Your task to perform on an android device: toggle show notifications on the lock screen Image 0: 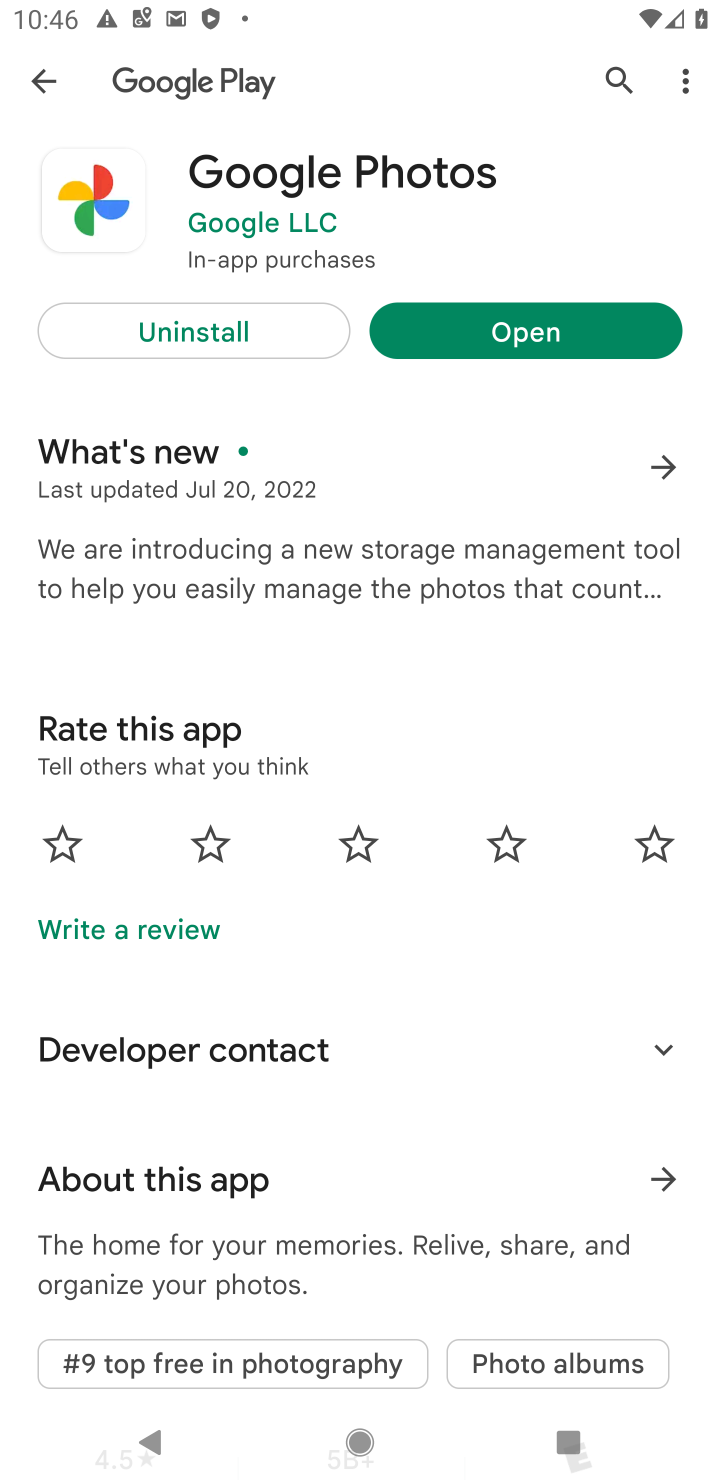
Step 0: drag from (301, 469) to (356, 1462)
Your task to perform on an android device: toggle show notifications on the lock screen Image 1: 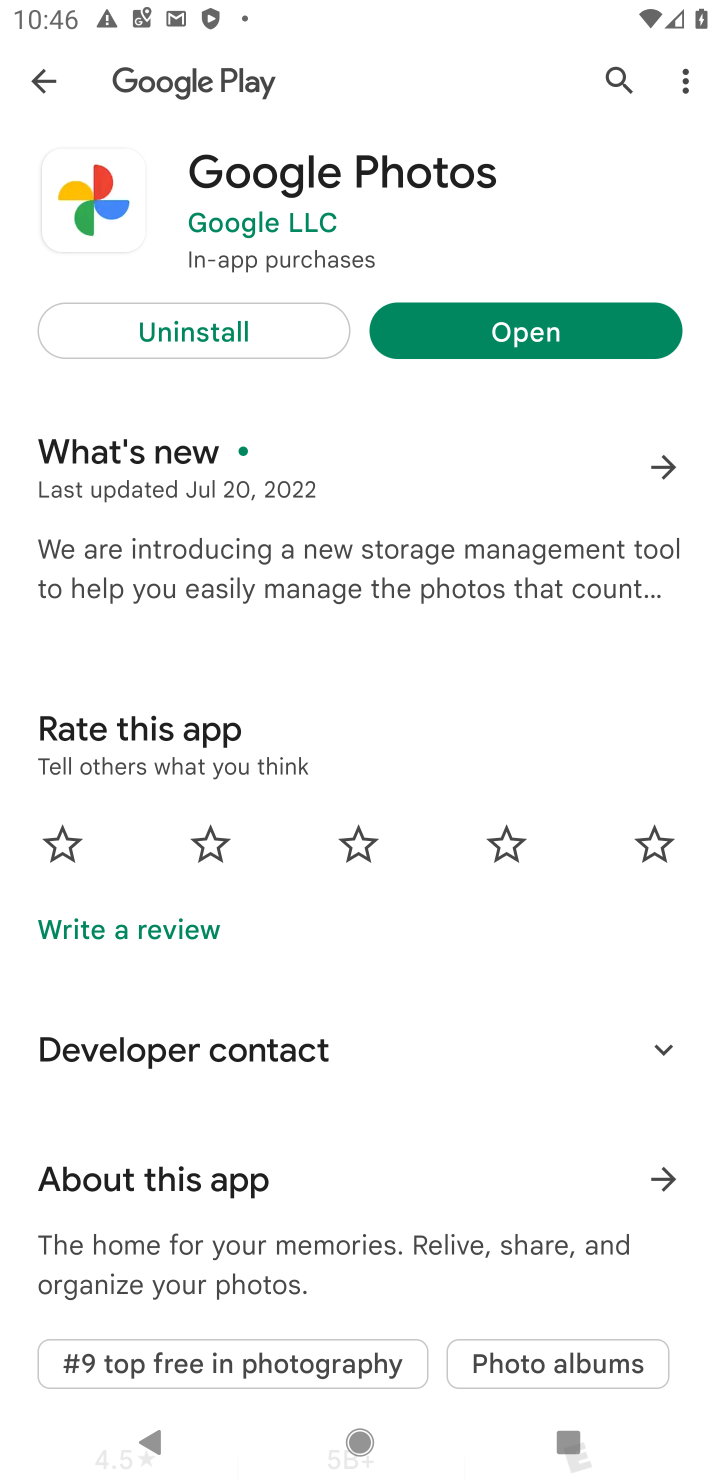
Step 1: drag from (365, 616) to (401, 1416)
Your task to perform on an android device: toggle show notifications on the lock screen Image 2: 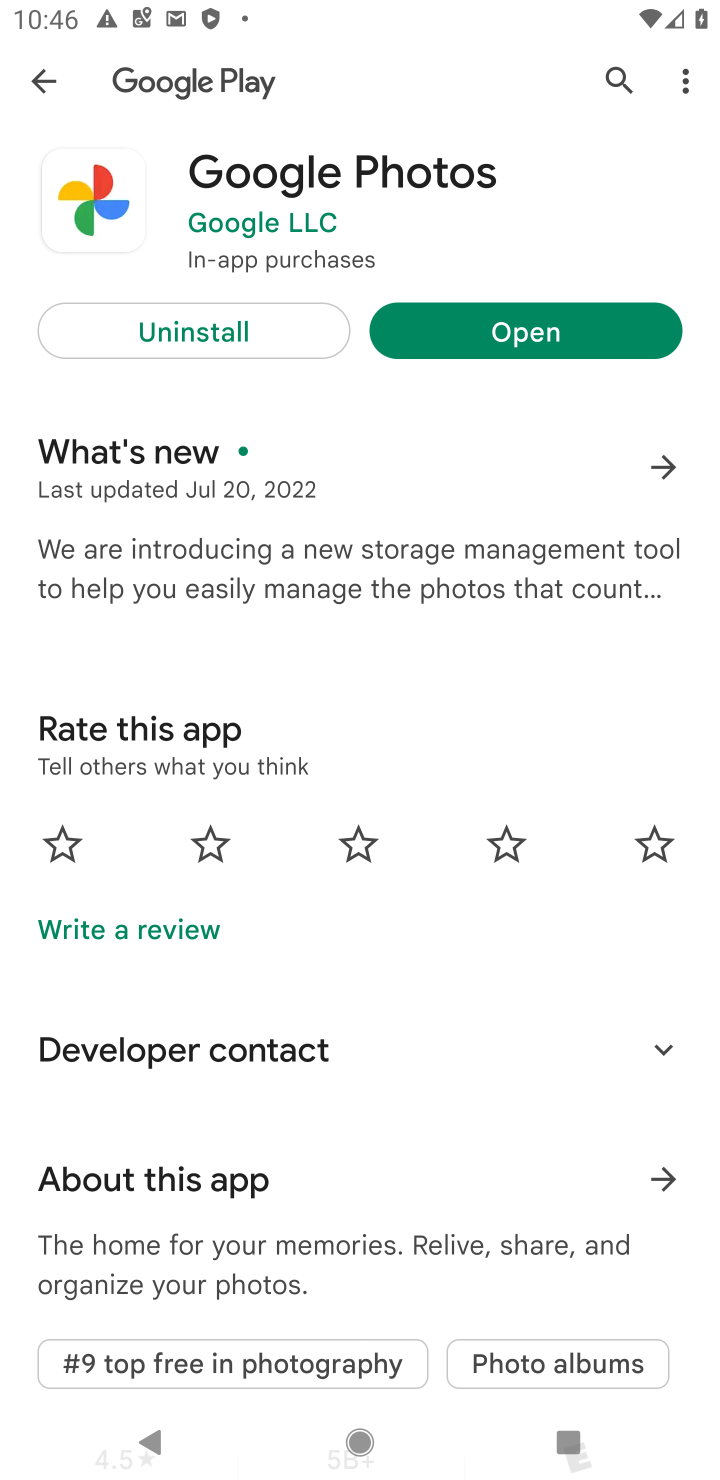
Step 2: press home button
Your task to perform on an android device: toggle show notifications on the lock screen Image 3: 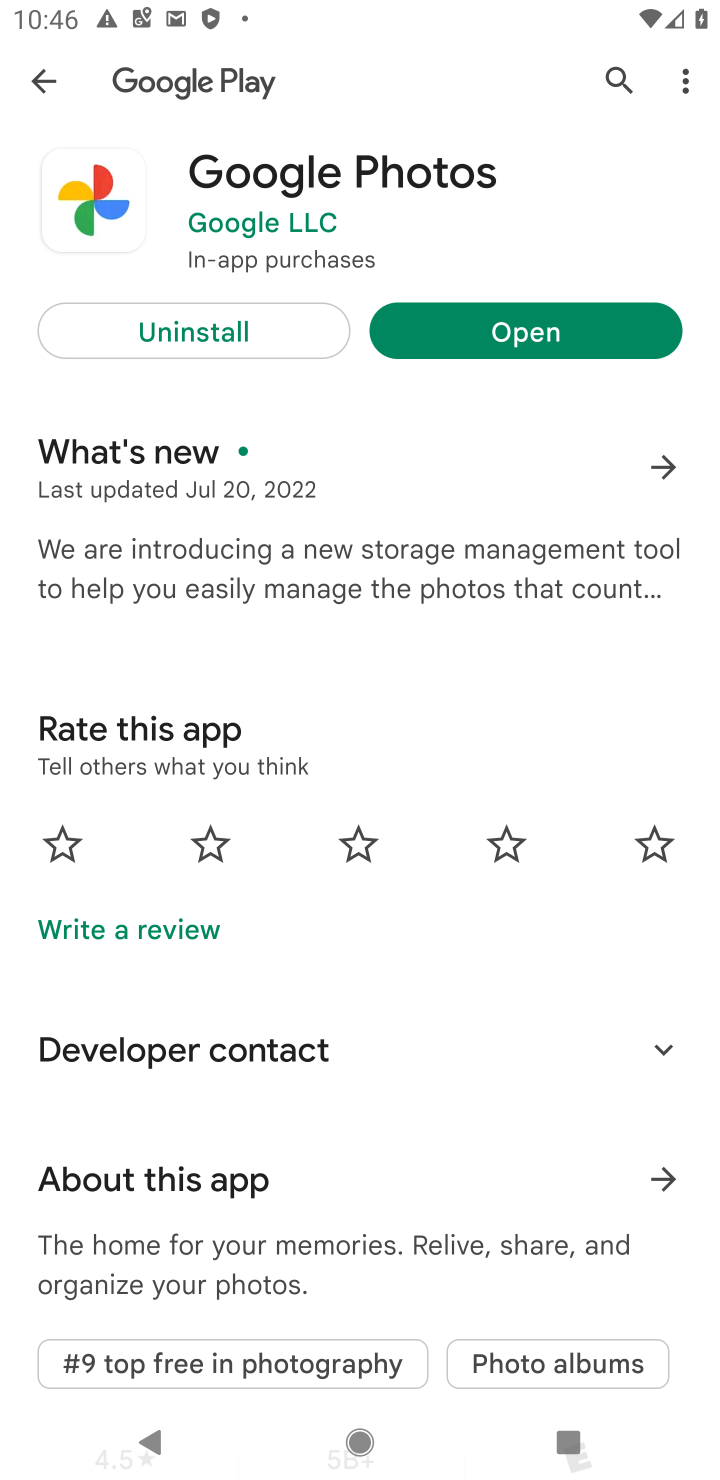
Step 3: drag from (313, 1241) to (557, 553)
Your task to perform on an android device: toggle show notifications on the lock screen Image 4: 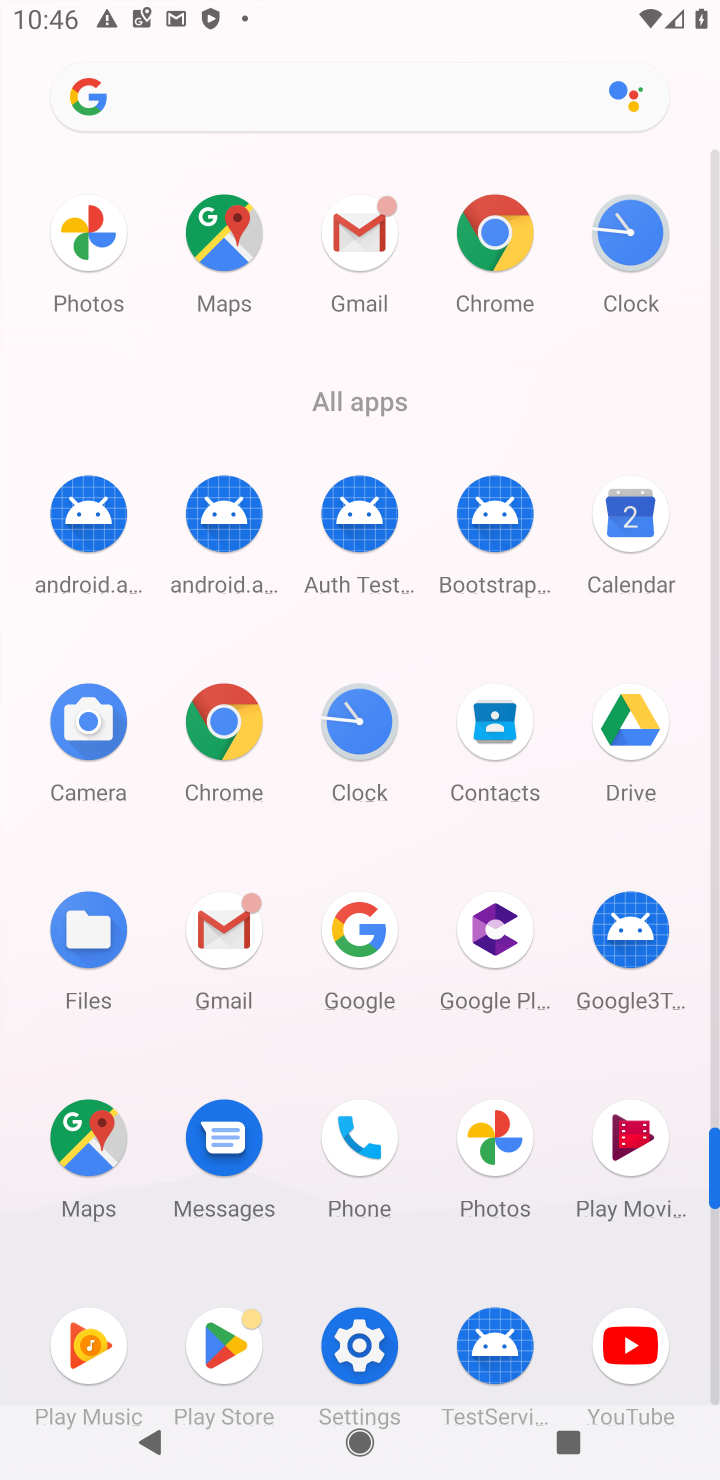
Step 4: click (380, 839)
Your task to perform on an android device: toggle show notifications on the lock screen Image 5: 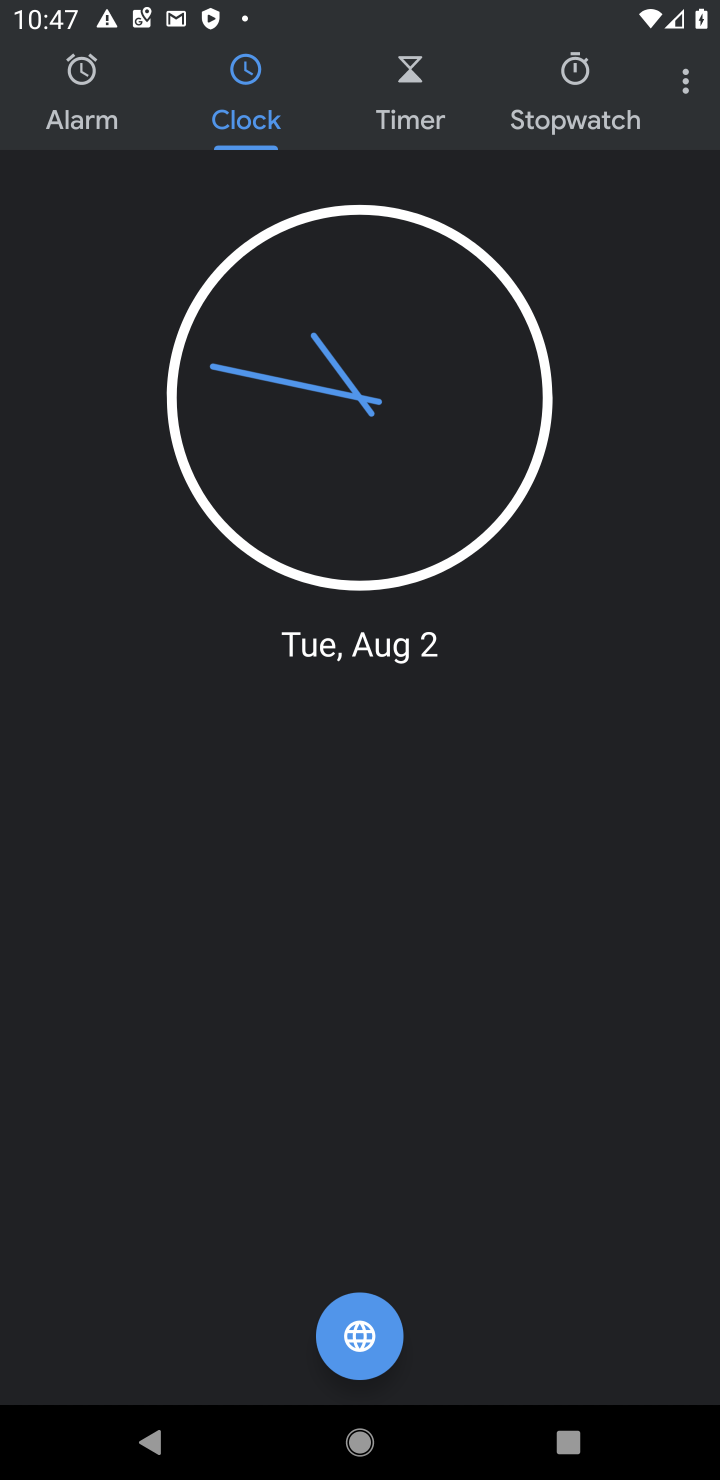
Step 5: press home button
Your task to perform on an android device: toggle show notifications on the lock screen Image 6: 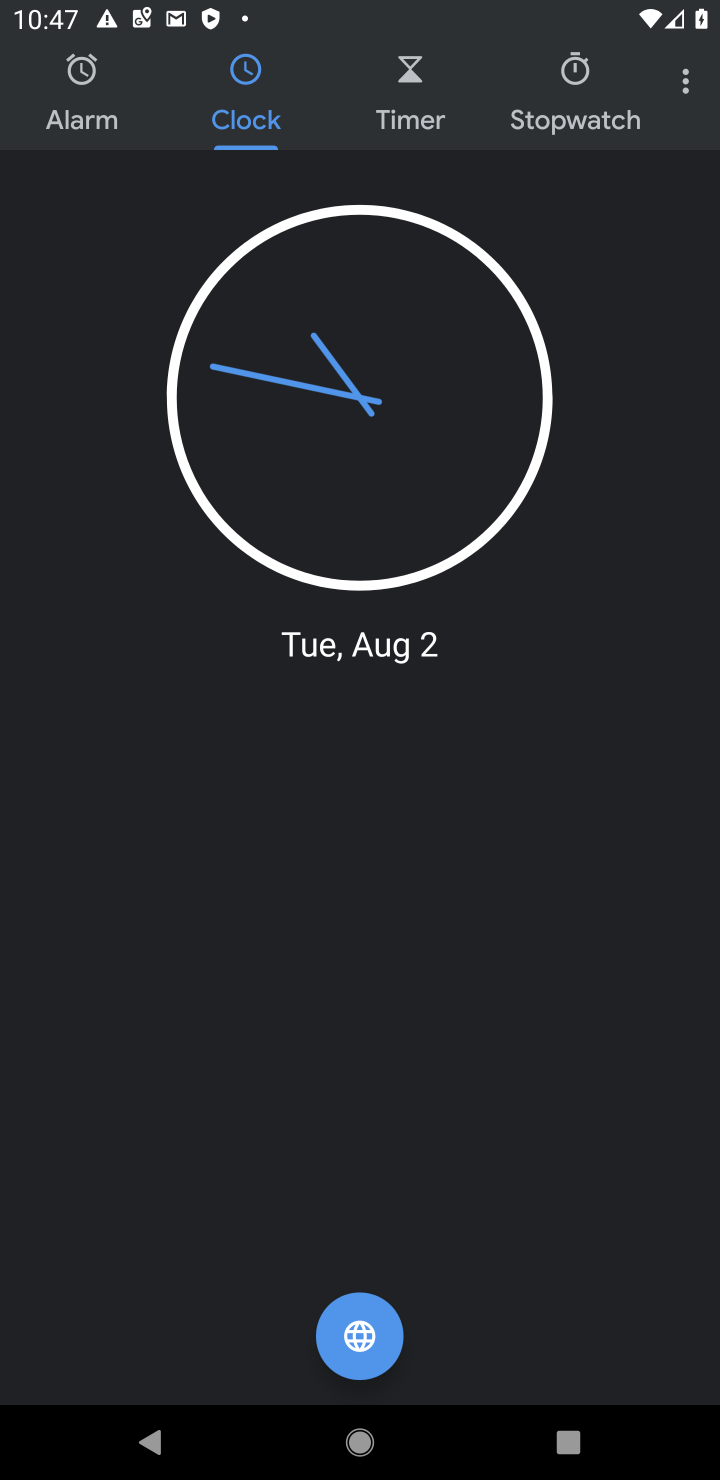
Step 6: press home button
Your task to perform on an android device: toggle show notifications on the lock screen Image 7: 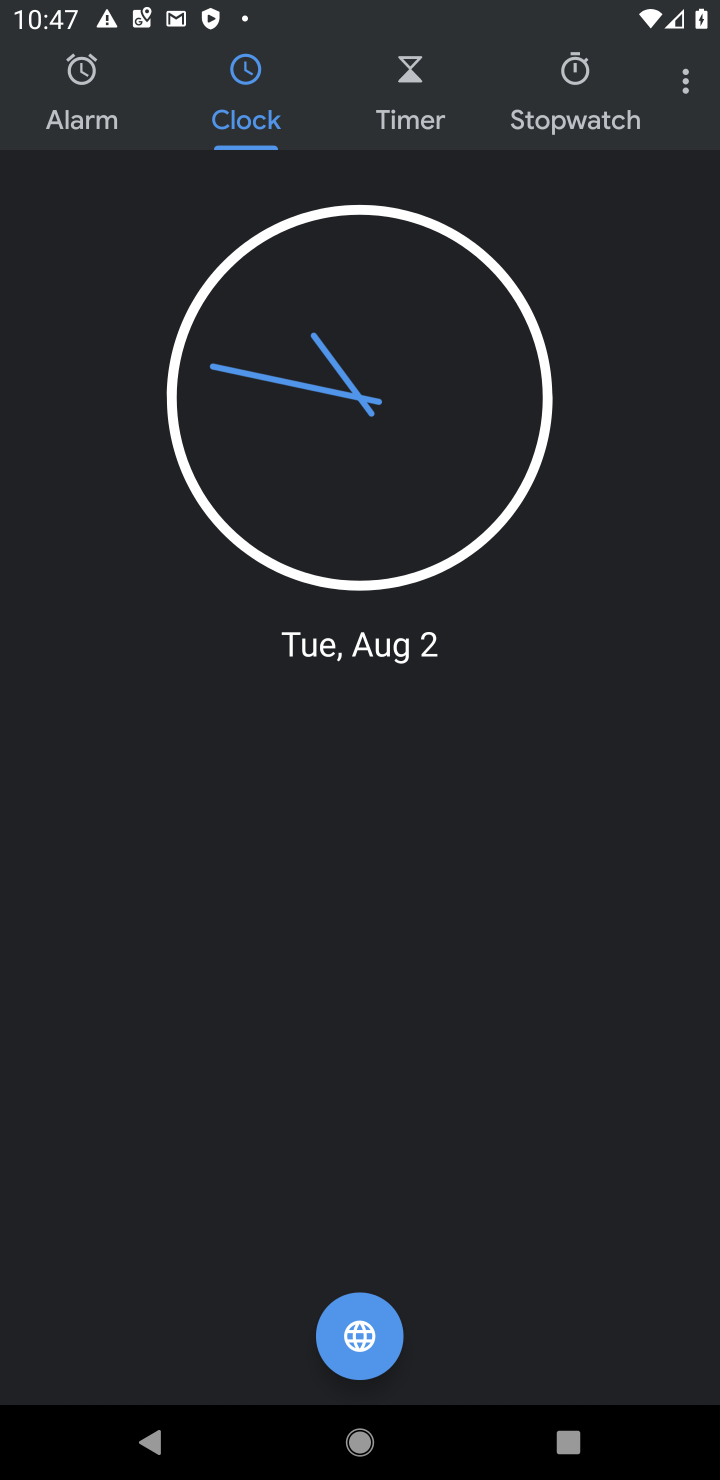
Step 7: click (474, 394)
Your task to perform on an android device: toggle show notifications on the lock screen Image 8: 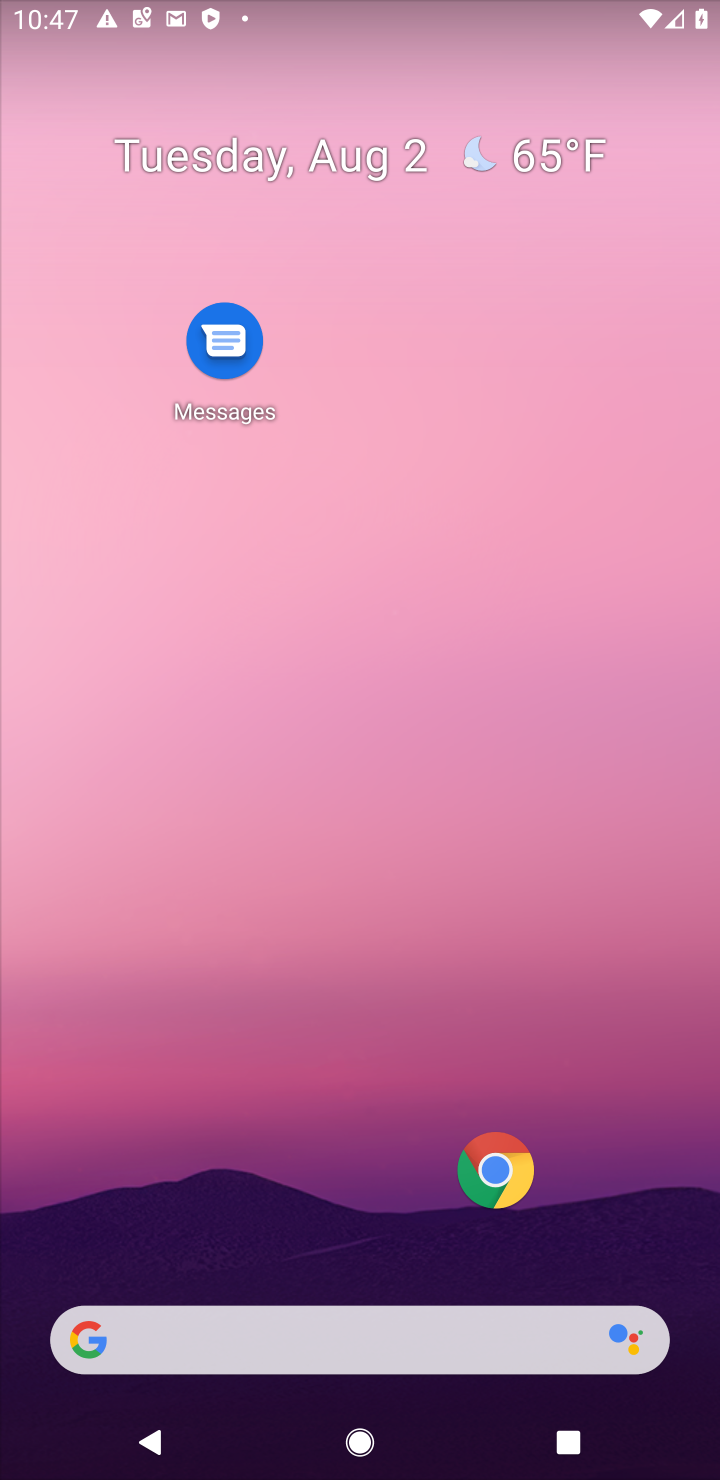
Step 8: drag from (307, 999) to (329, 4)
Your task to perform on an android device: toggle show notifications on the lock screen Image 9: 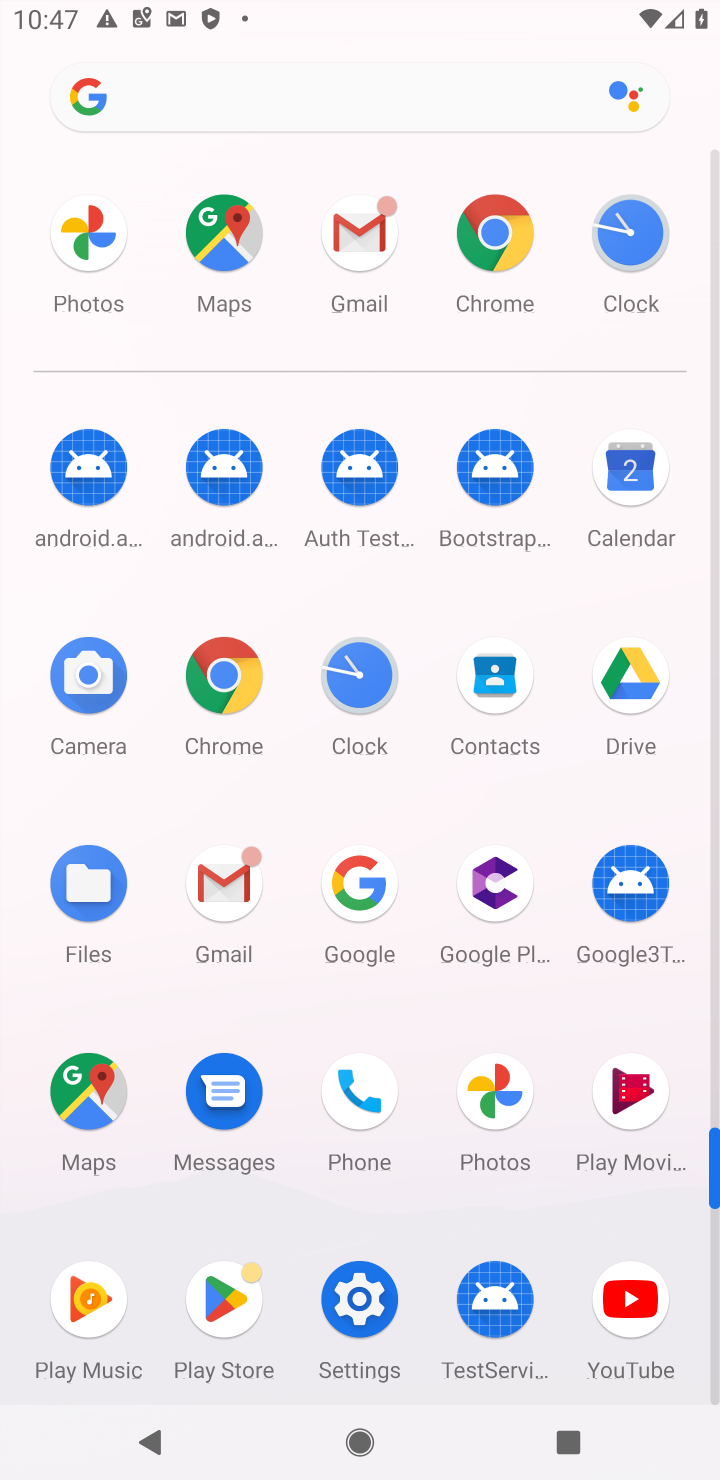
Step 9: drag from (320, 1219) to (463, 0)
Your task to perform on an android device: toggle show notifications on the lock screen Image 10: 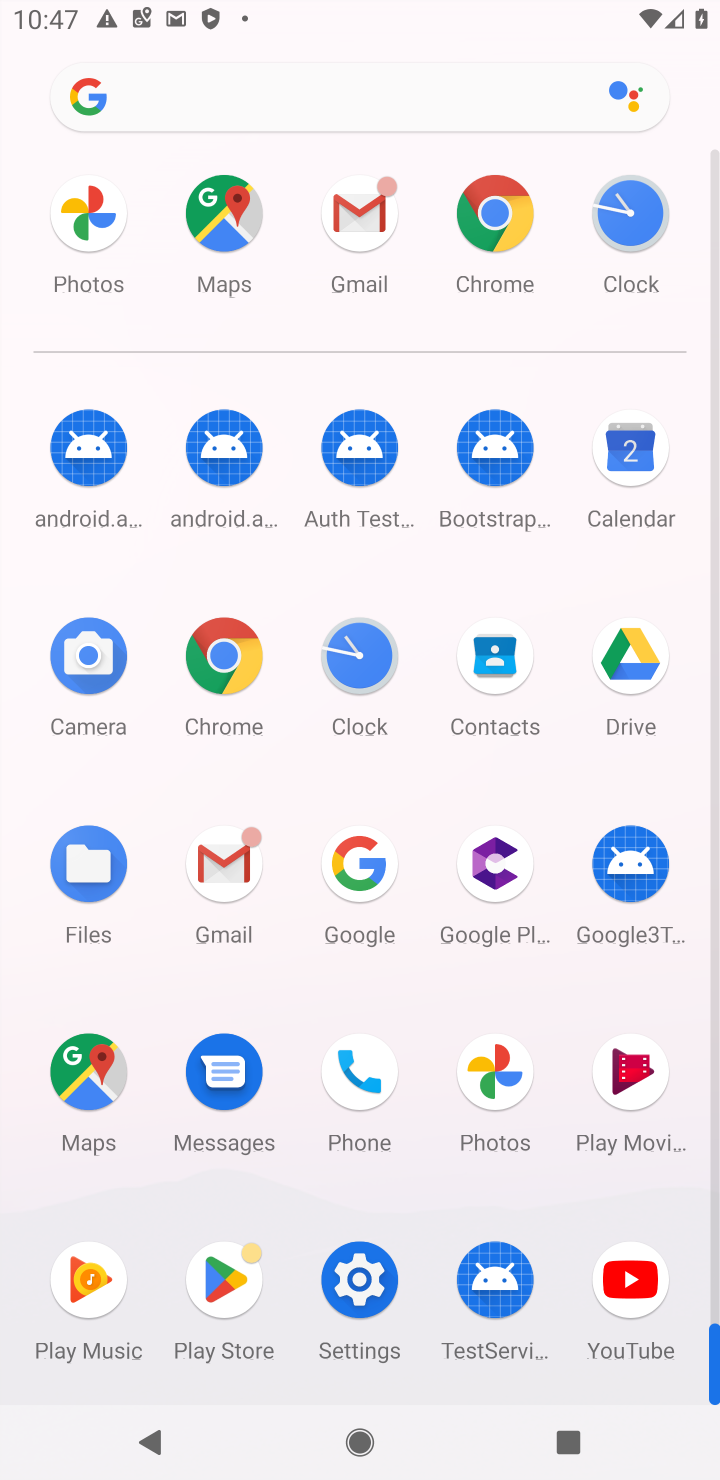
Step 10: drag from (411, 1128) to (376, 277)
Your task to perform on an android device: toggle show notifications on the lock screen Image 11: 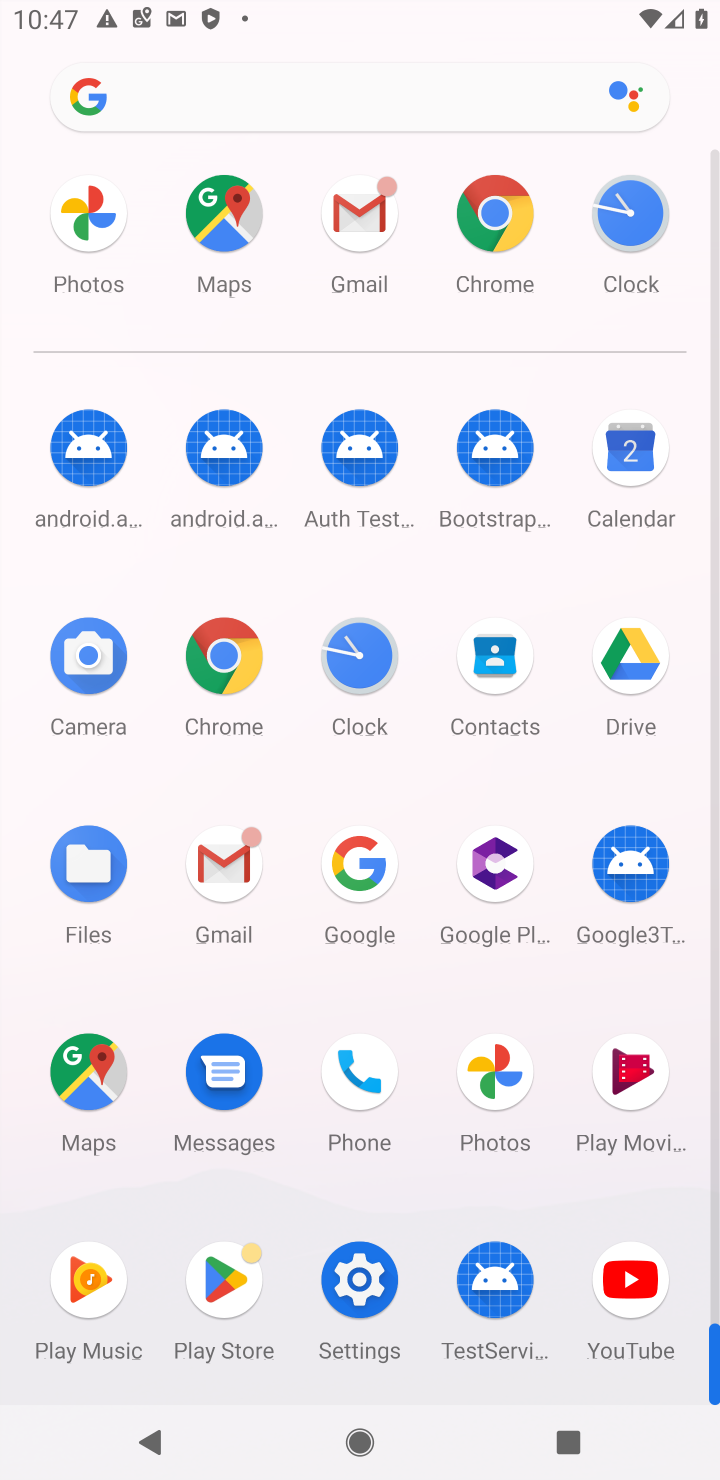
Step 11: drag from (433, 1172) to (437, 726)
Your task to perform on an android device: toggle show notifications on the lock screen Image 12: 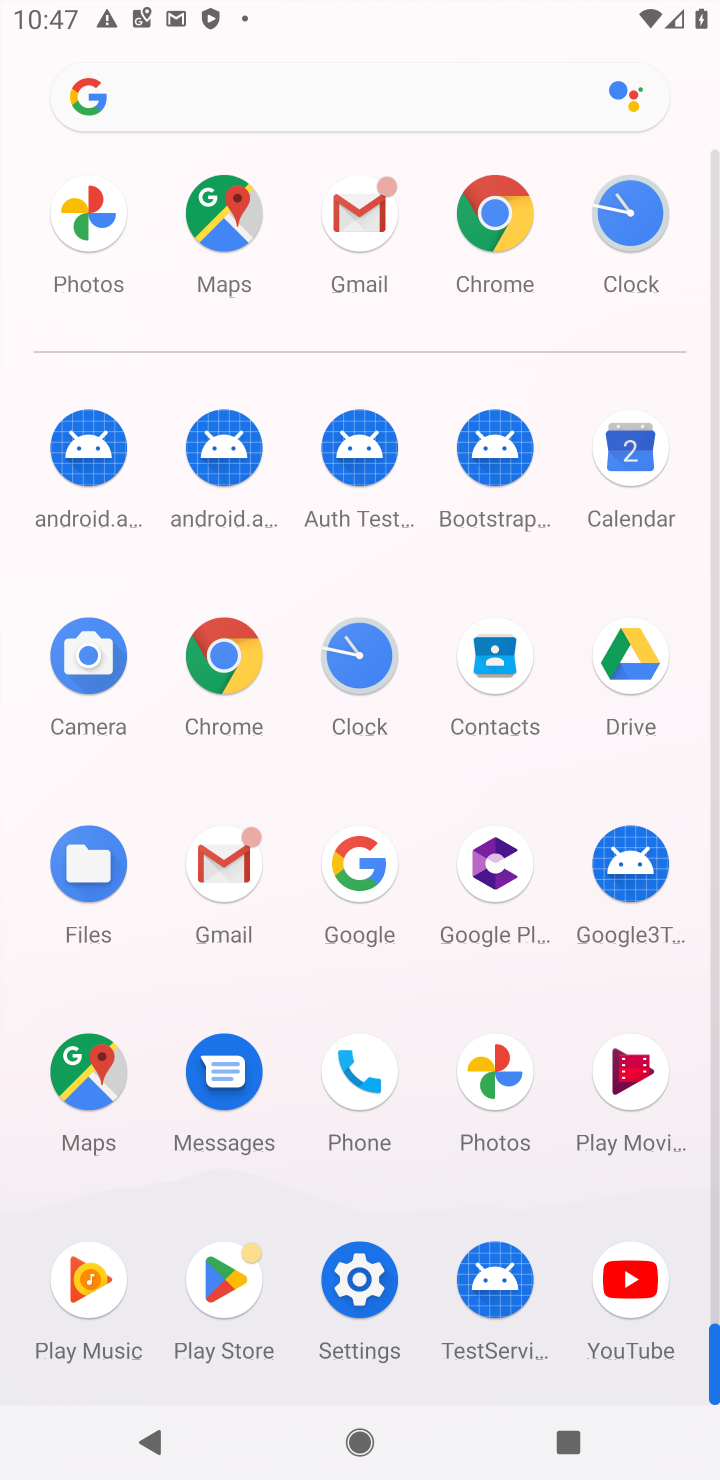
Step 12: click (360, 1273)
Your task to perform on an android device: toggle show notifications on the lock screen Image 13: 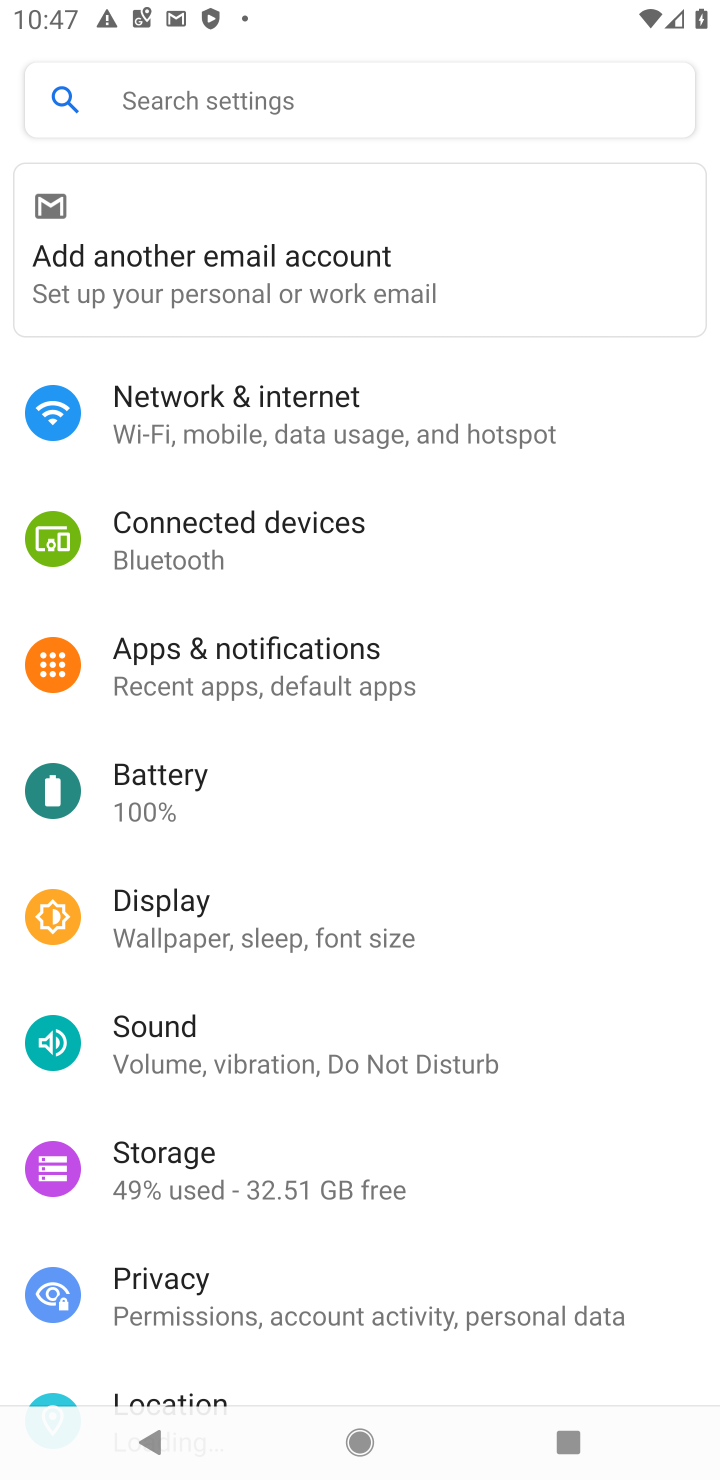
Step 13: click (253, 667)
Your task to perform on an android device: toggle show notifications on the lock screen Image 14: 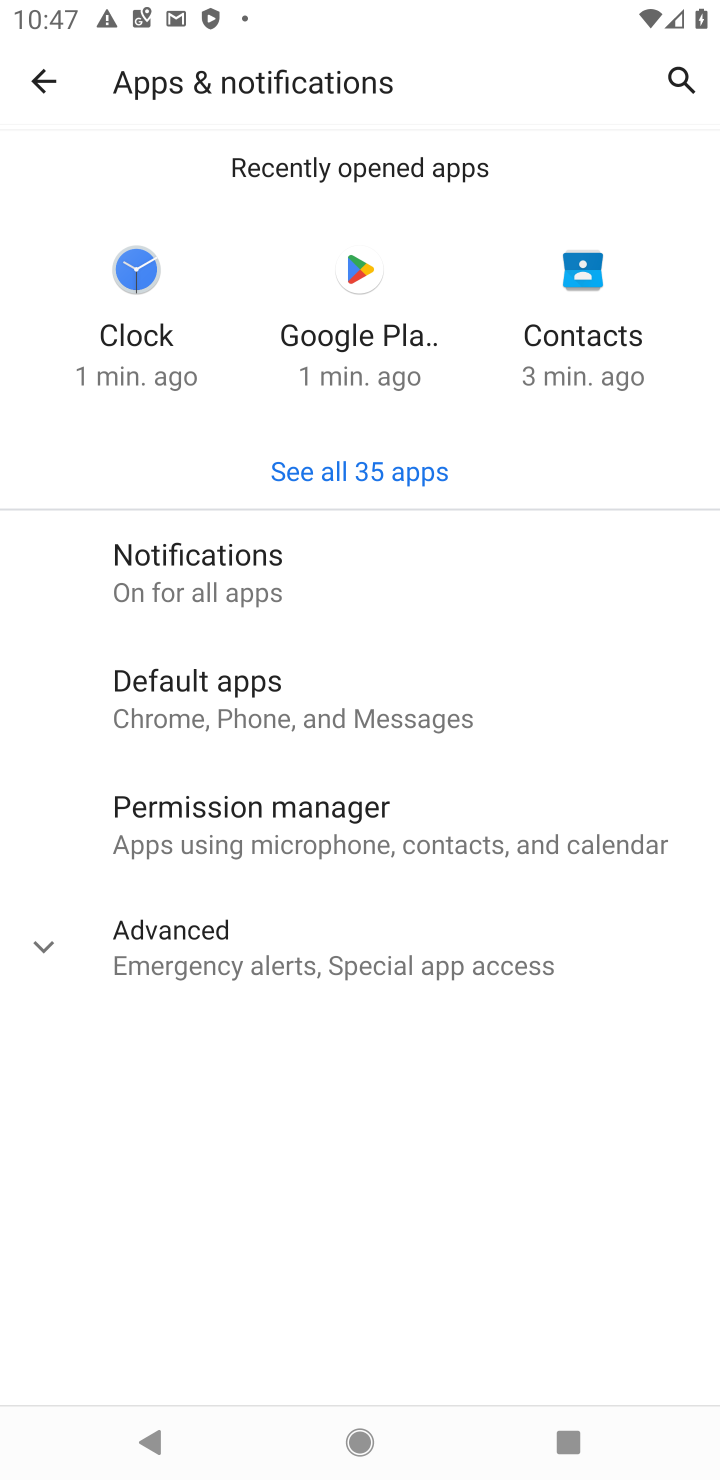
Step 14: click (293, 586)
Your task to perform on an android device: toggle show notifications on the lock screen Image 15: 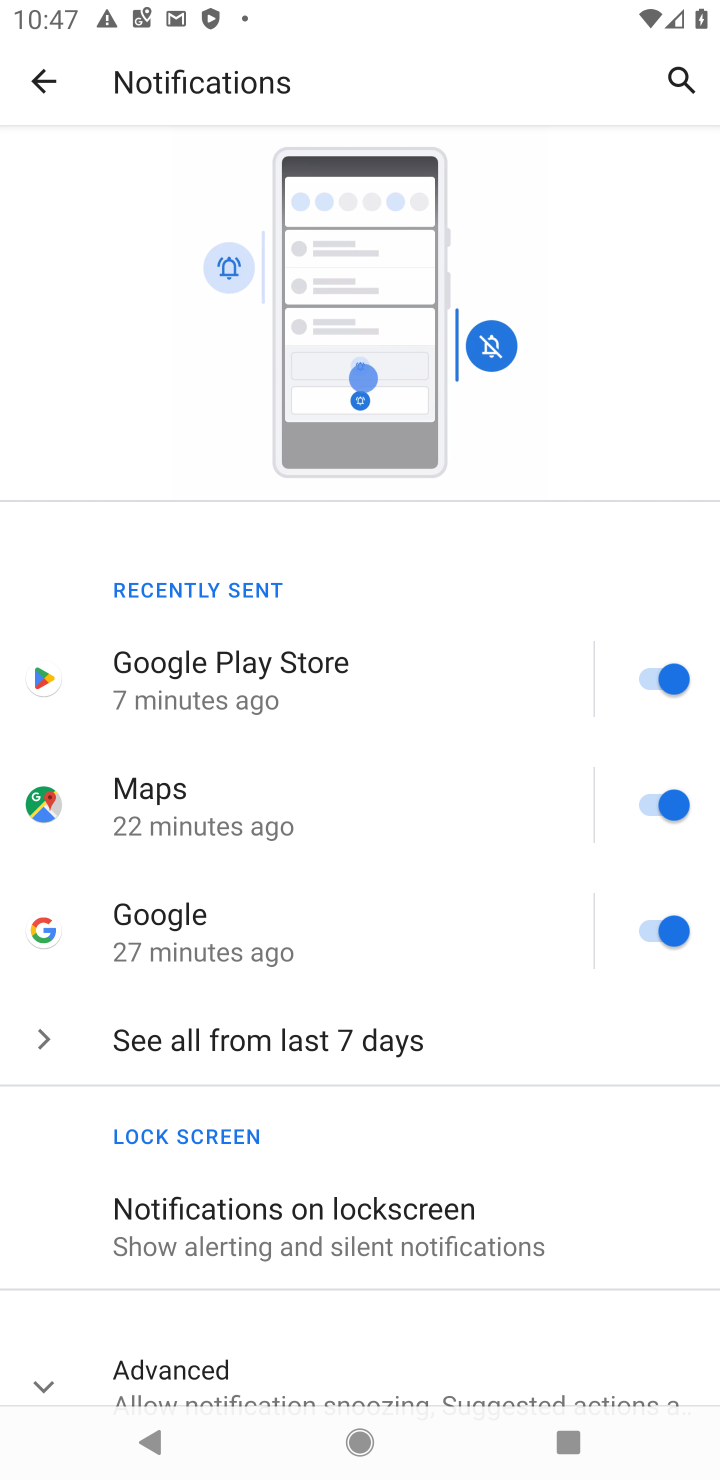
Step 15: click (277, 1240)
Your task to perform on an android device: toggle show notifications on the lock screen Image 16: 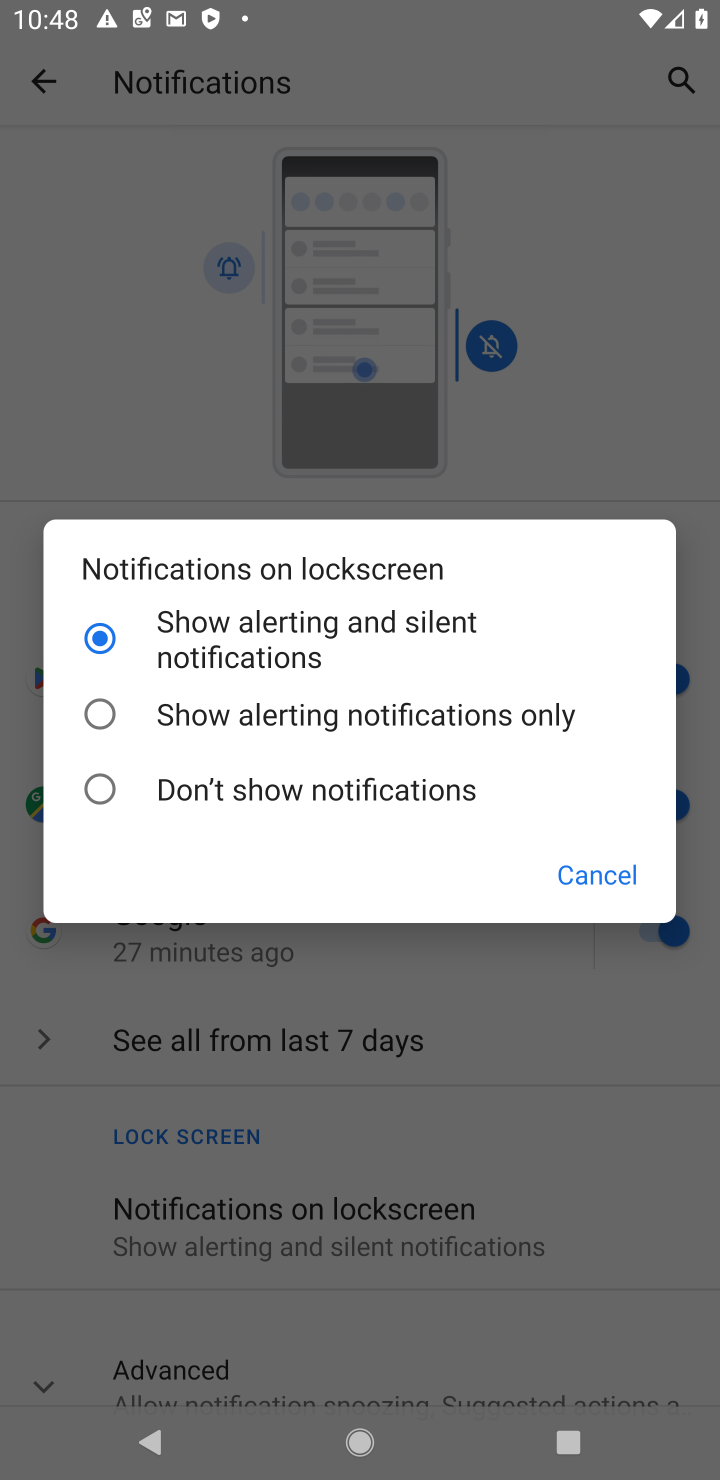
Step 16: click (132, 731)
Your task to perform on an android device: toggle show notifications on the lock screen Image 17: 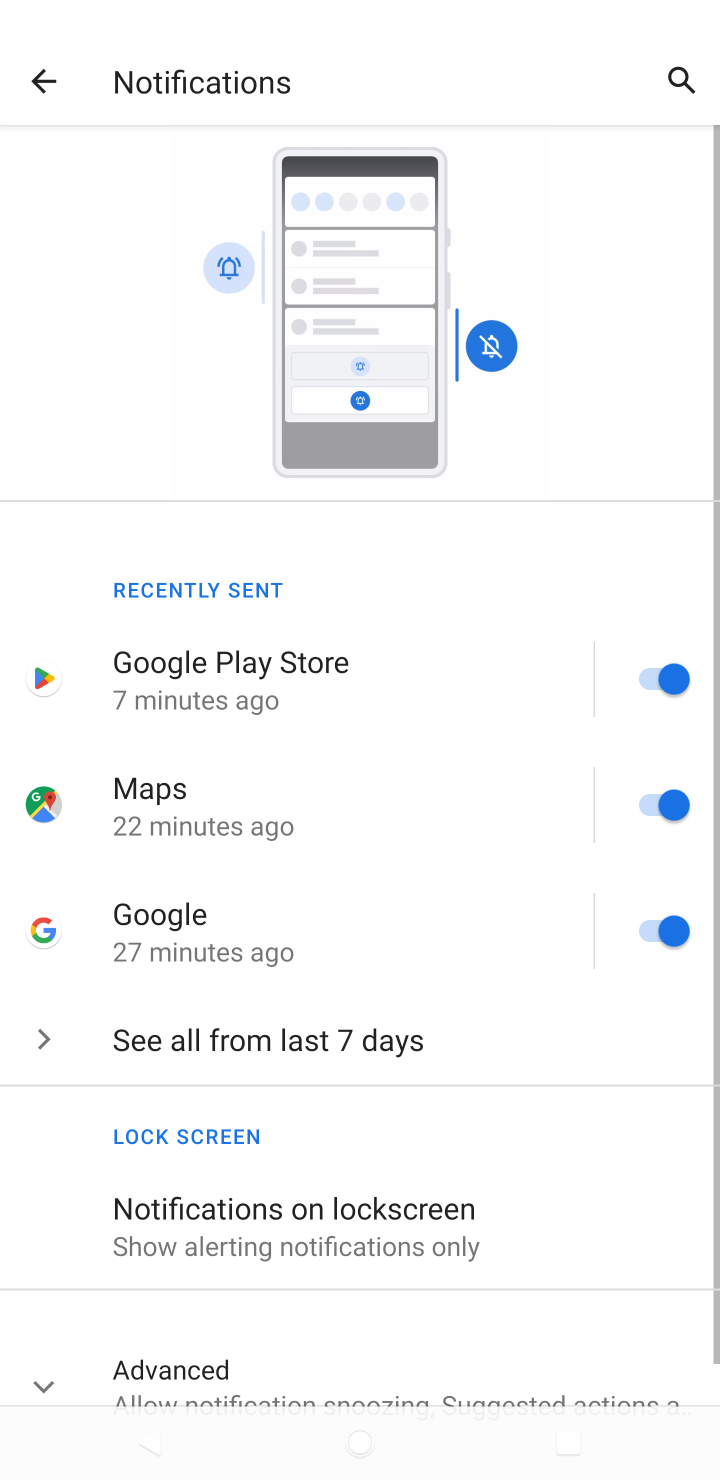
Step 17: task complete